Your task to perform on an android device: turn on wifi Image 0: 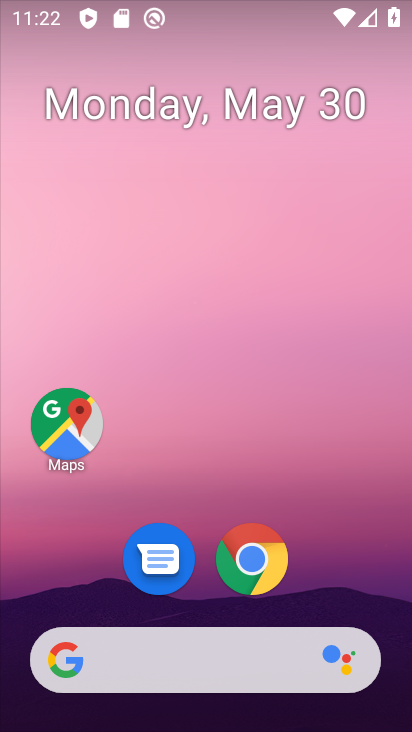
Step 0: drag from (275, 554) to (294, 232)
Your task to perform on an android device: turn on wifi Image 1: 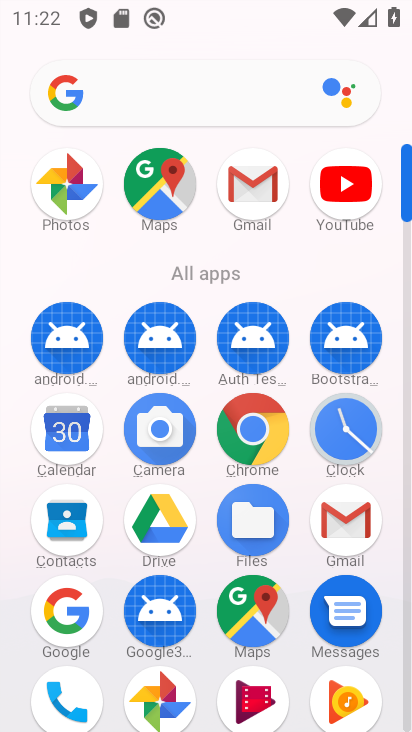
Step 1: drag from (205, 617) to (206, 288)
Your task to perform on an android device: turn on wifi Image 2: 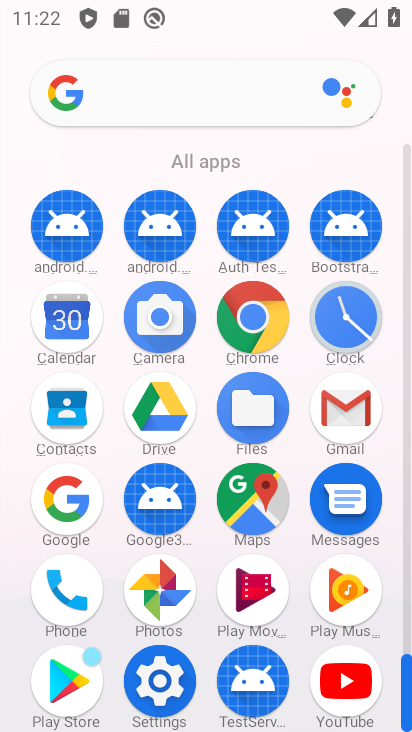
Step 2: click (156, 683)
Your task to perform on an android device: turn on wifi Image 3: 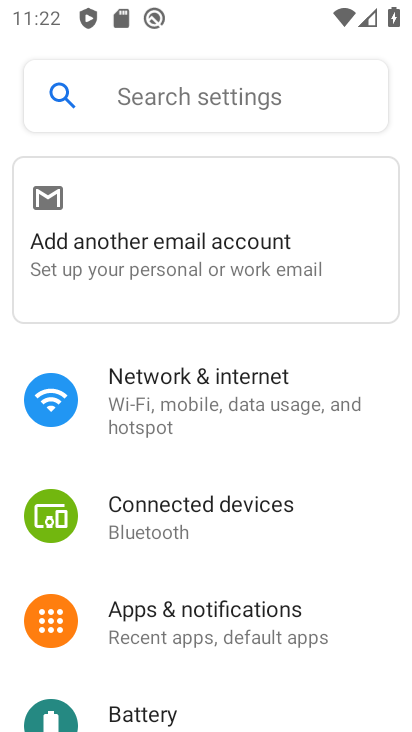
Step 3: click (249, 403)
Your task to perform on an android device: turn on wifi Image 4: 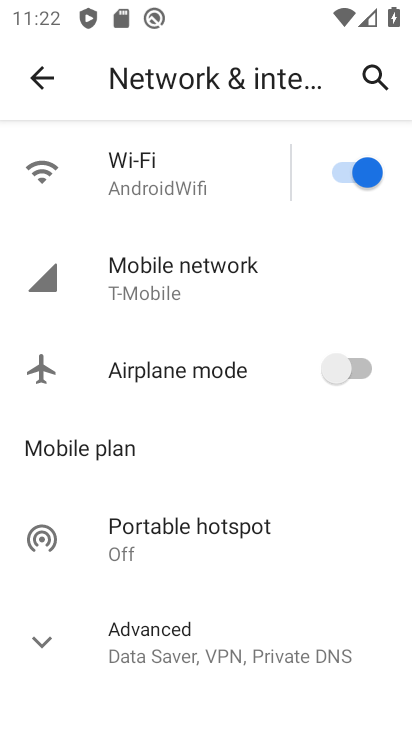
Step 4: task complete